Your task to perform on an android device: Go to battery settings Image 0: 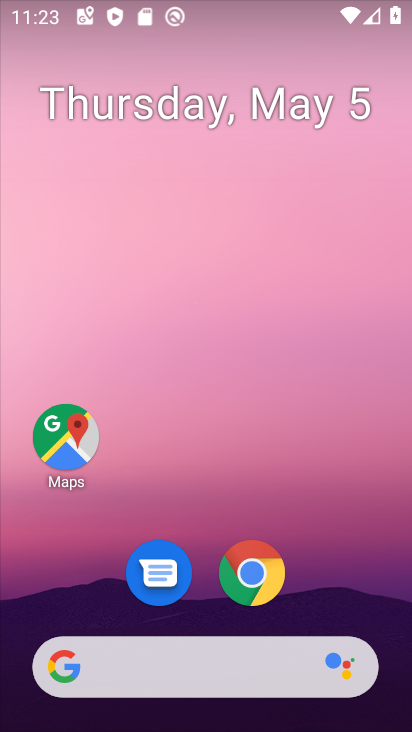
Step 0: drag from (325, 564) to (325, 328)
Your task to perform on an android device: Go to battery settings Image 1: 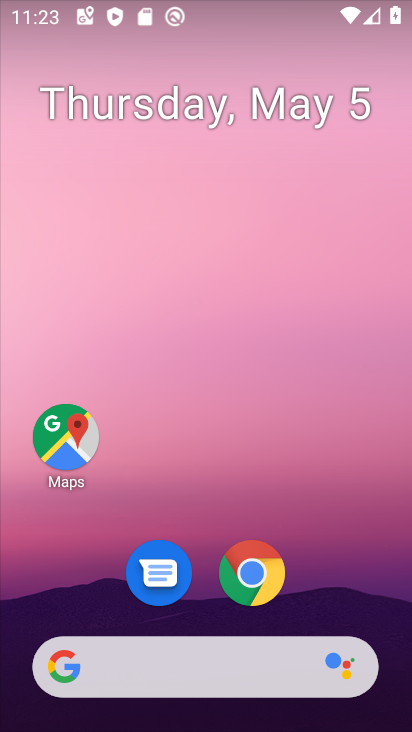
Step 1: drag from (325, 293) to (317, 187)
Your task to perform on an android device: Go to battery settings Image 2: 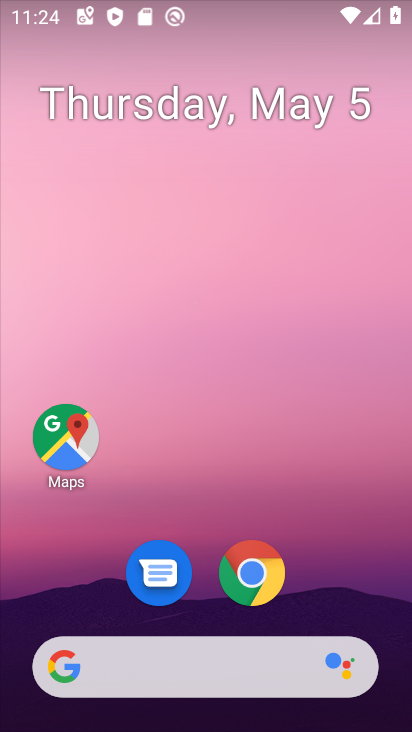
Step 2: drag from (314, 587) to (318, 53)
Your task to perform on an android device: Go to battery settings Image 3: 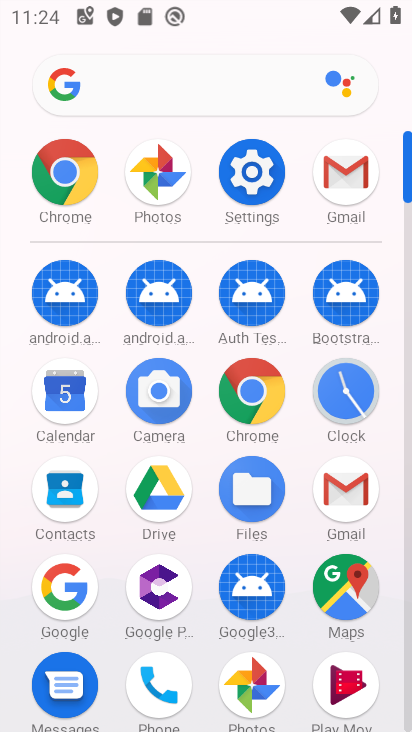
Step 3: click (244, 169)
Your task to perform on an android device: Go to battery settings Image 4: 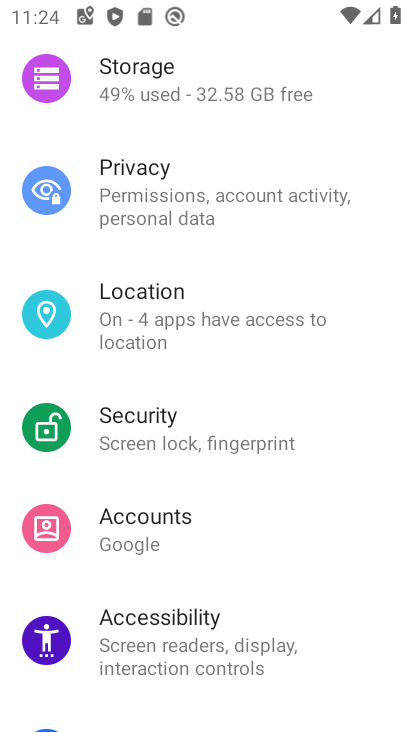
Step 4: drag from (246, 154) to (248, 580)
Your task to perform on an android device: Go to battery settings Image 5: 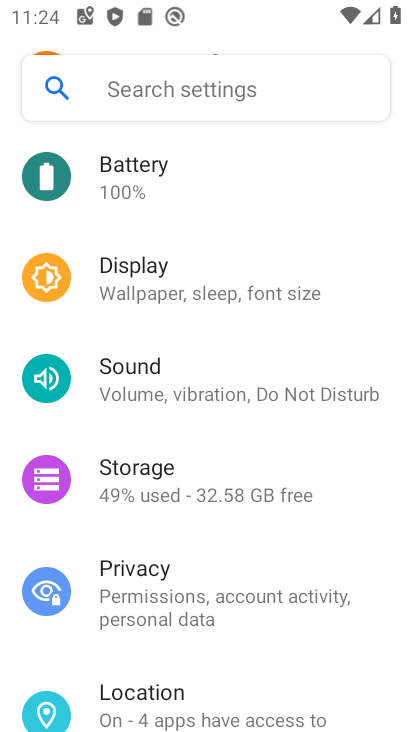
Step 5: click (157, 179)
Your task to perform on an android device: Go to battery settings Image 6: 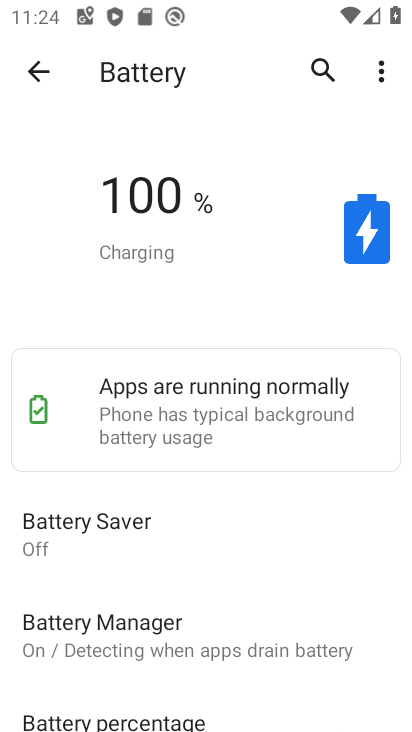
Step 6: task complete